Your task to perform on an android device: Check the weather Image 0: 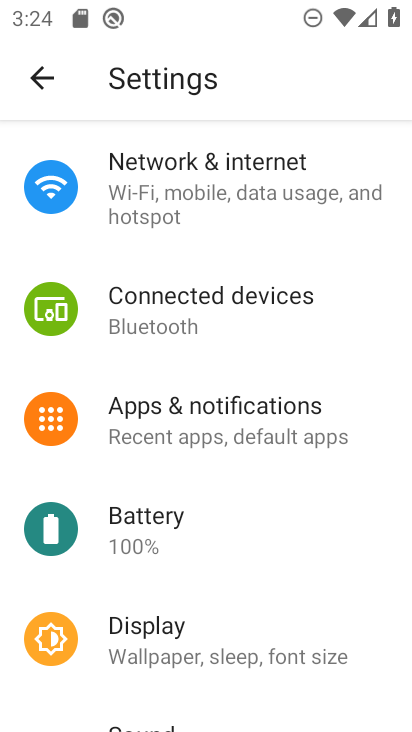
Step 0: press home button
Your task to perform on an android device: Check the weather Image 1: 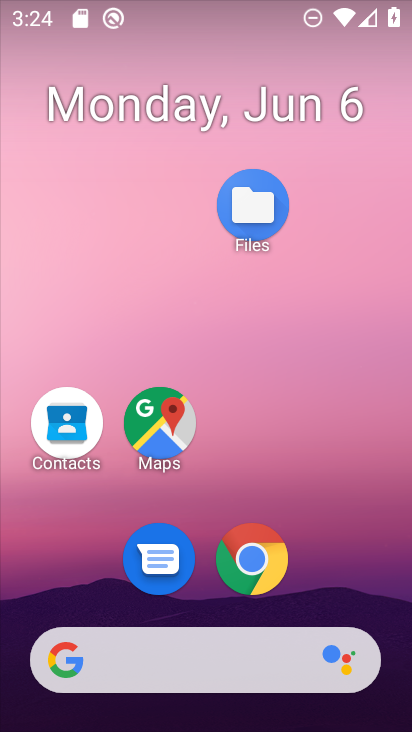
Step 1: drag from (207, 616) to (155, 162)
Your task to perform on an android device: Check the weather Image 2: 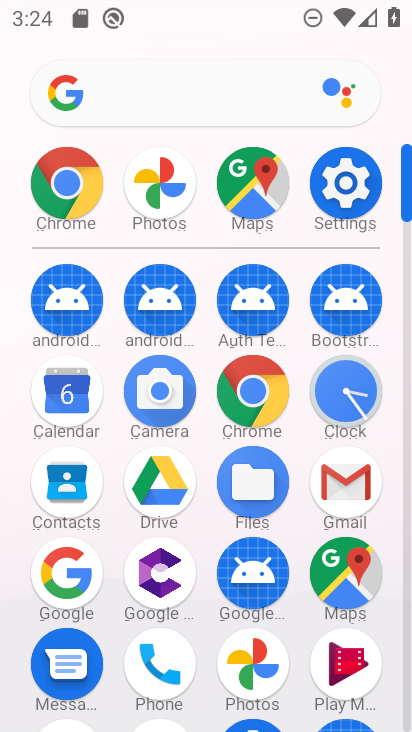
Step 2: click (60, 577)
Your task to perform on an android device: Check the weather Image 3: 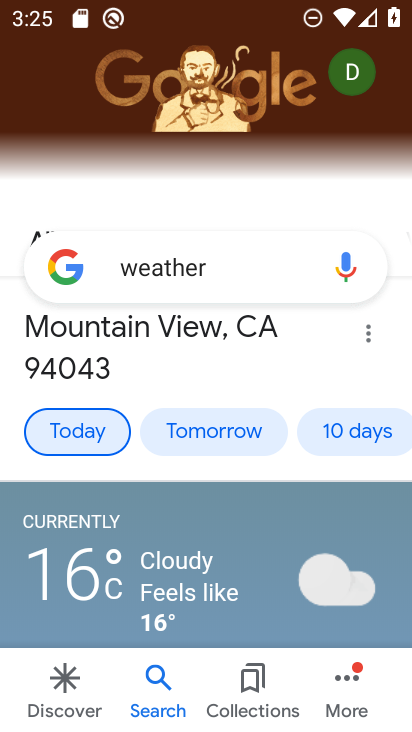
Step 3: task complete